Your task to perform on an android device: toggle translation in the chrome app Image 0: 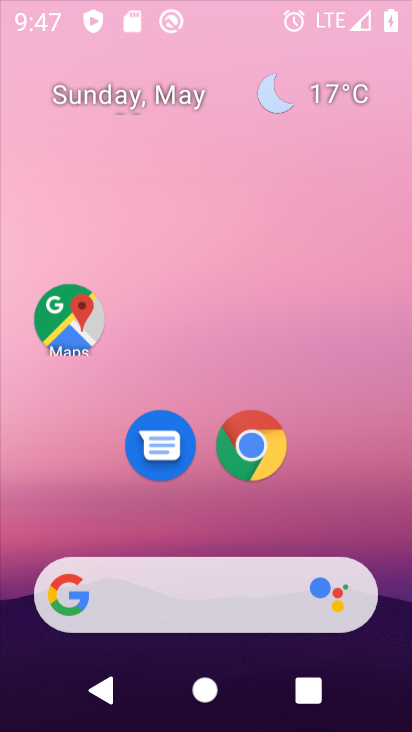
Step 0: drag from (409, 359) to (264, 255)
Your task to perform on an android device: toggle translation in the chrome app Image 1: 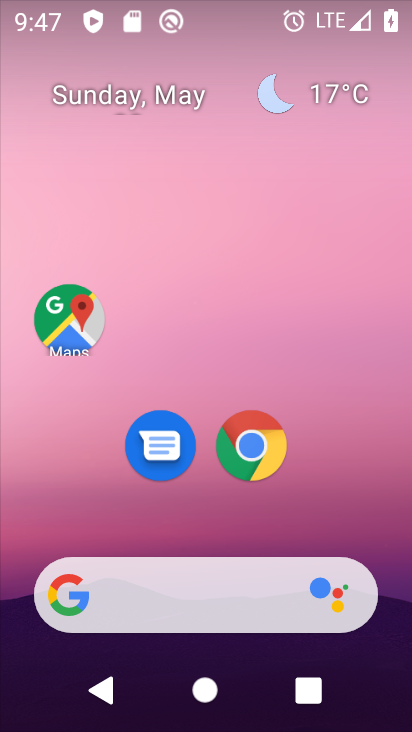
Step 1: drag from (209, 539) to (256, 235)
Your task to perform on an android device: toggle translation in the chrome app Image 2: 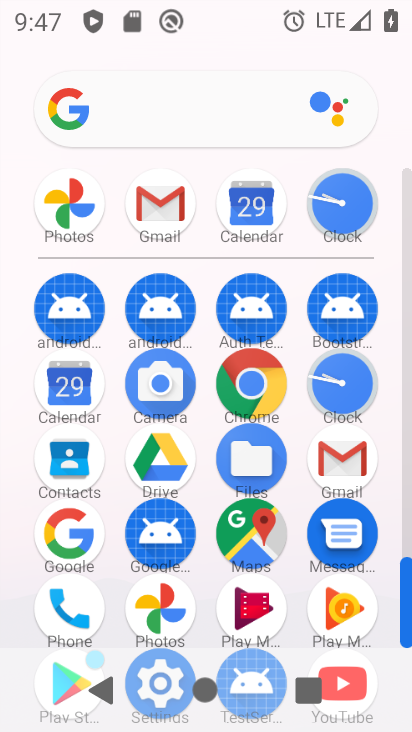
Step 2: click (251, 389)
Your task to perform on an android device: toggle translation in the chrome app Image 3: 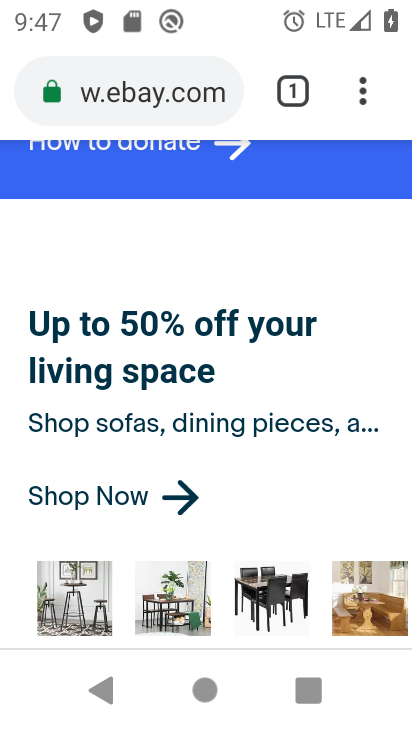
Step 3: drag from (363, 87) to (102, 475)
Your task to perform on an android device: toggle translation in the chrome app Image 4: 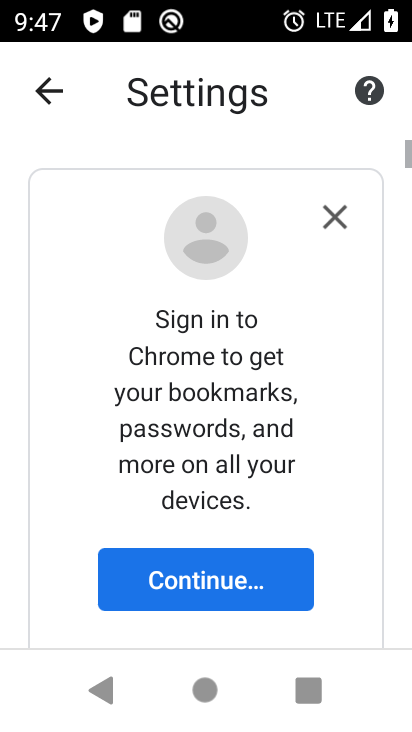
Step 4: drag from (288, 577) to (389, 147)
Your task to perform on an android device: toggle translation in the chrome app Image 5: 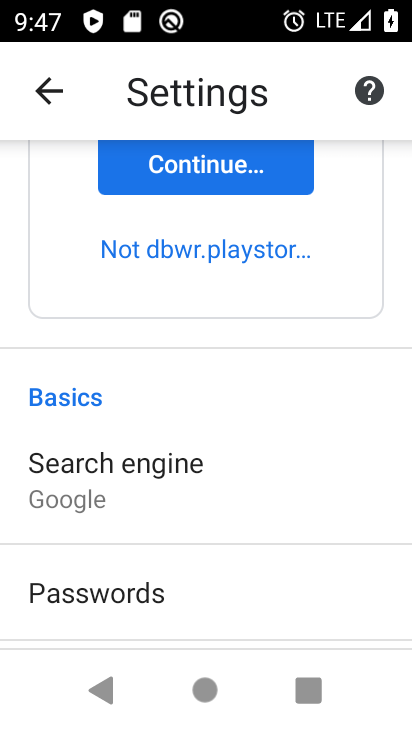
Step 5: drag from (202, 600) to (275, 269)
Your task to perform on an android device: toggle translation in the chrome app Image 6: 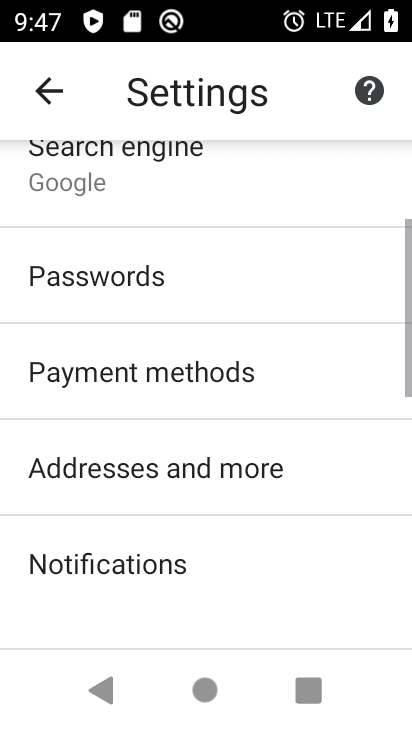
Step 6: drag from (192, 616) to (340, 222)
Your task to perform on an android device: toggle translation in the chrome app Image 7: 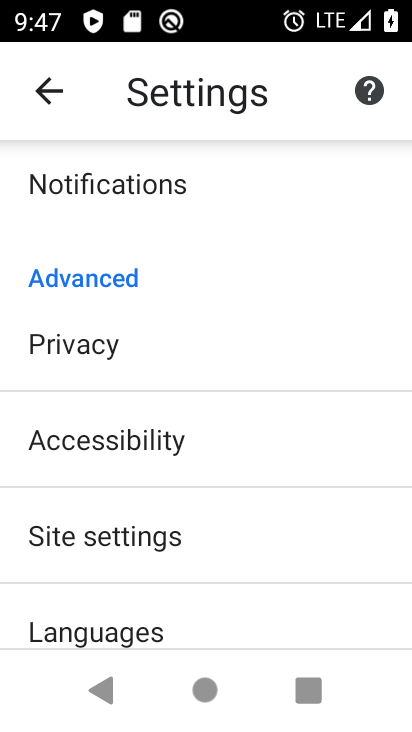
Step 7: drag from (196, 586) to (343, 238)
Your task to perform on an android device: toggle translation in the chrome app Image 8: 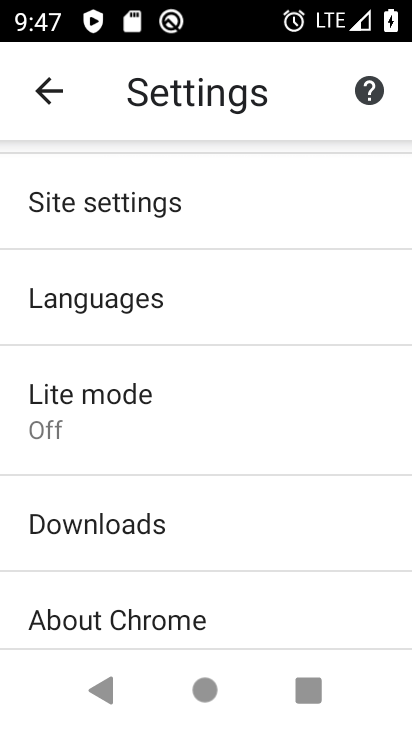
Step 8: click (136, 431)
Your task to perform on an android device: toggle translation in the chrome app Image 9: 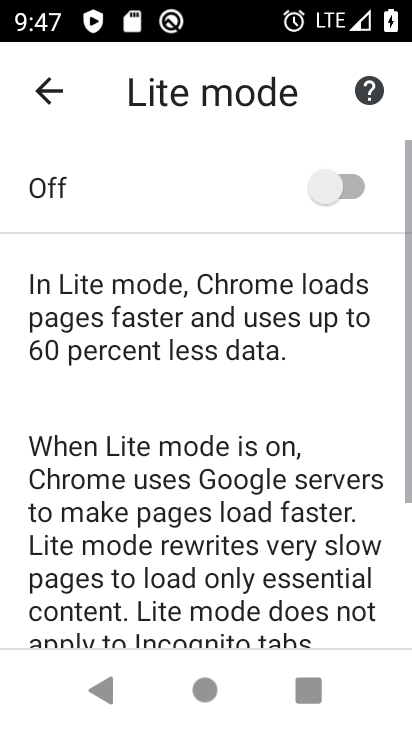
Step 9: drag from (231, 595) to (406, 224)
Your task to perform on an android device: toggle translation in the chrome app Image 10: 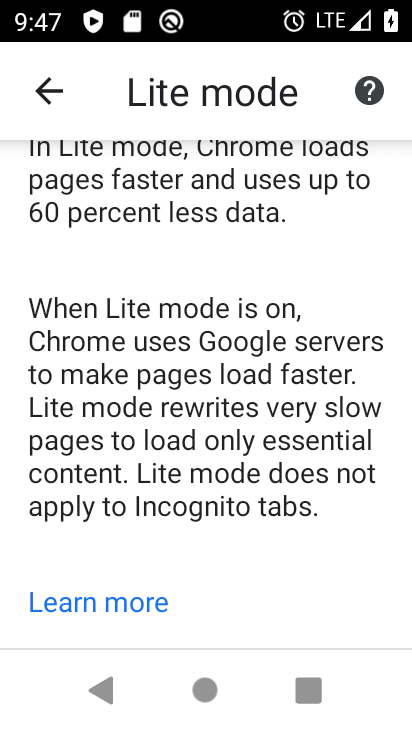
Step 10: drag from (223, 525) to (320, 188)
Your task to perform on an android device: toggle translation in the chrome app Image 11: 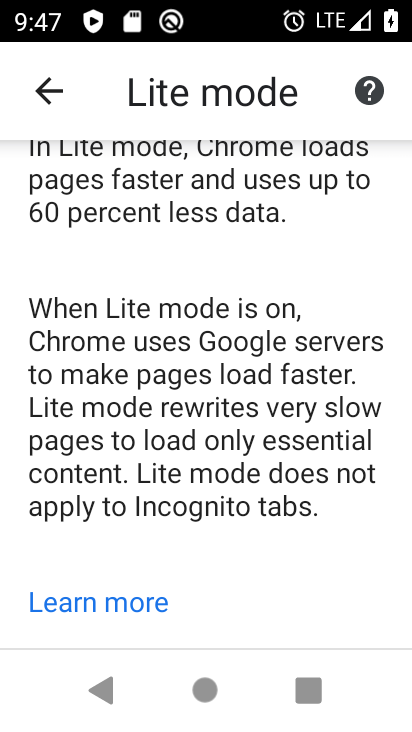
Step 11: drag from (227, 306) to (222, 667)
Your task to perform on an android device: toggle translation in the chrome app Image 12: 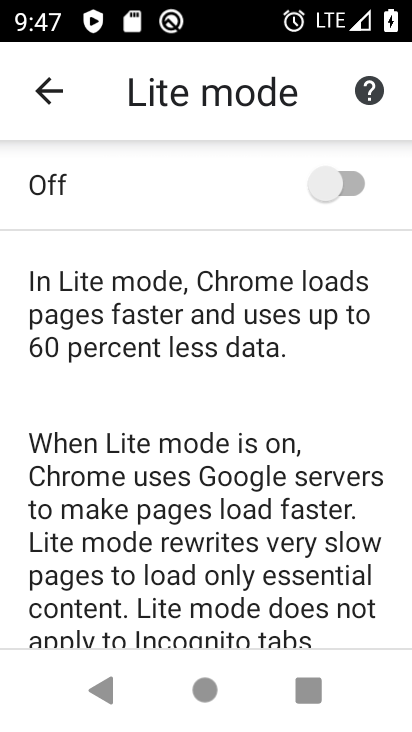
Step 12: click (35, 96)
Your task to perform on an android device: toggle translation in the chrome app Image 13: 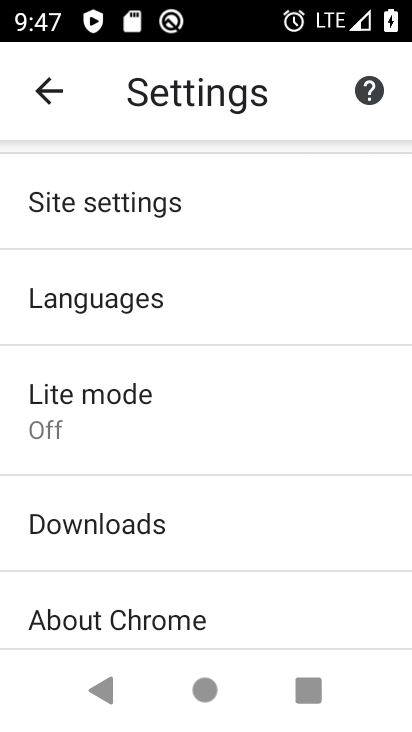
Step 13: click (137, 301)
Your task to perform on an android device: toggle translation in the chrome app Image 14: 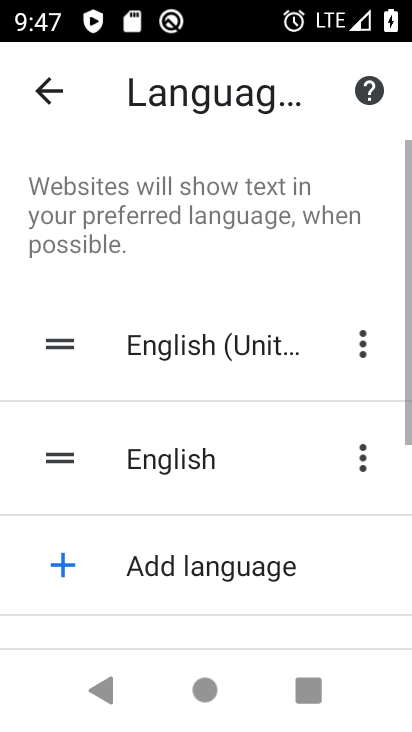
Step 14: drag from (325, 604) to (411, 7)
Your task to perform on an android device: toggle translation in the chrome app Image 15: 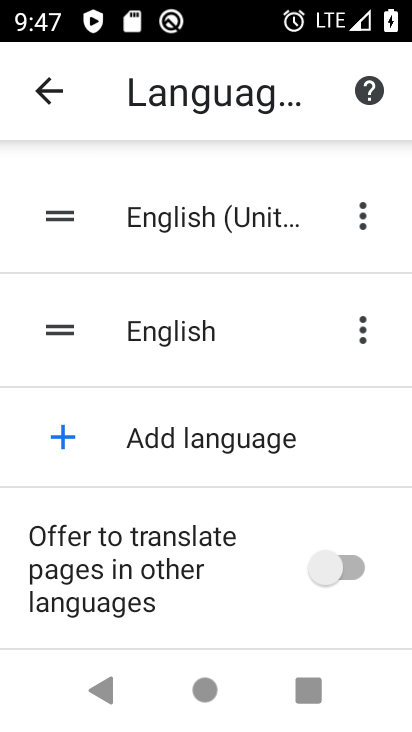
Step 15: click (326, 573)
Your task to perform on an android device: toggle translation in the chrome app Image 16: 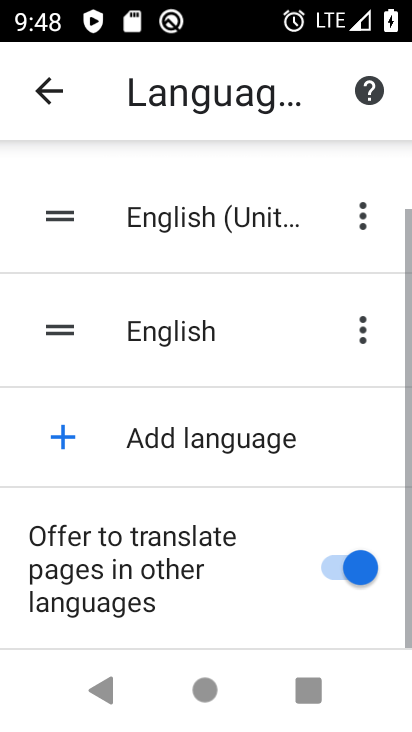
Step 16: task complete